Your task to perform on an android device: Open network settings Image 0: 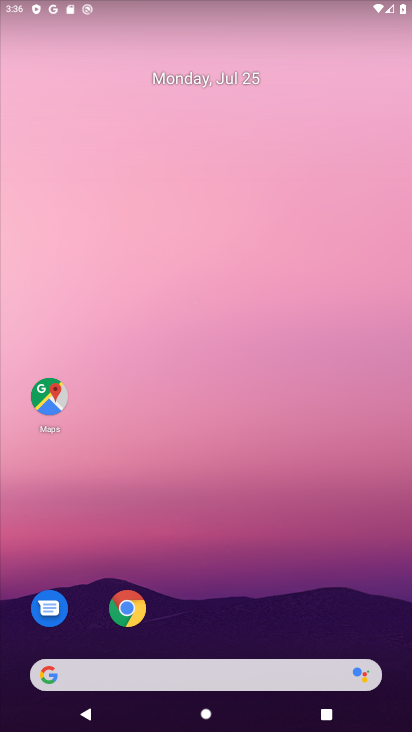
Step 0: press home button
Your task to perform on an android device: Open network settings Image 1: 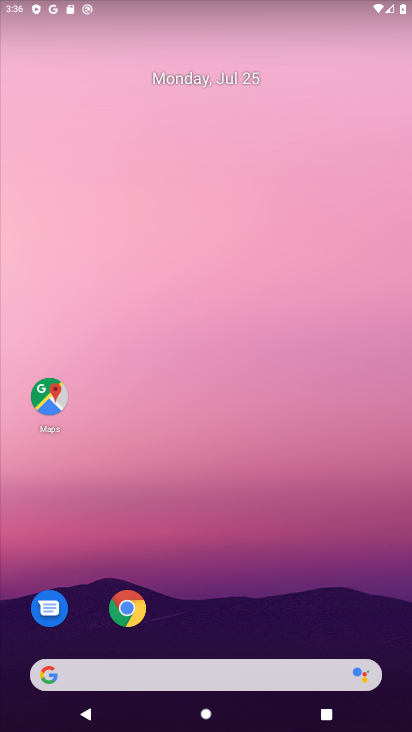
Step 1: drag from (208, 632) to (233, 10)
Your task to perform on an android device: Open network settings Image 2: 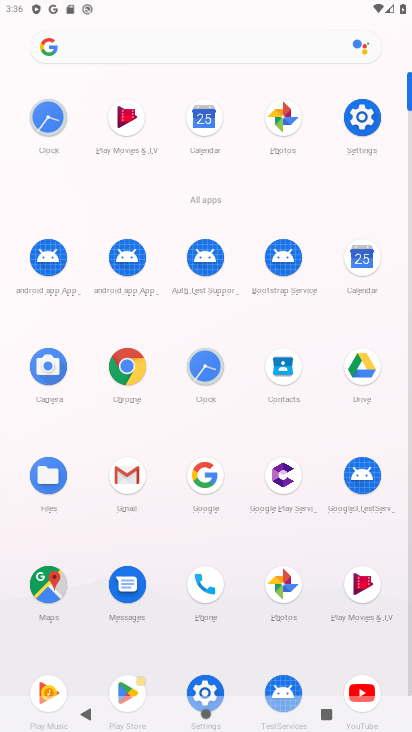
Step 2: click (361, 112)
Your task to perform on an android device: Open network settings Image 3: 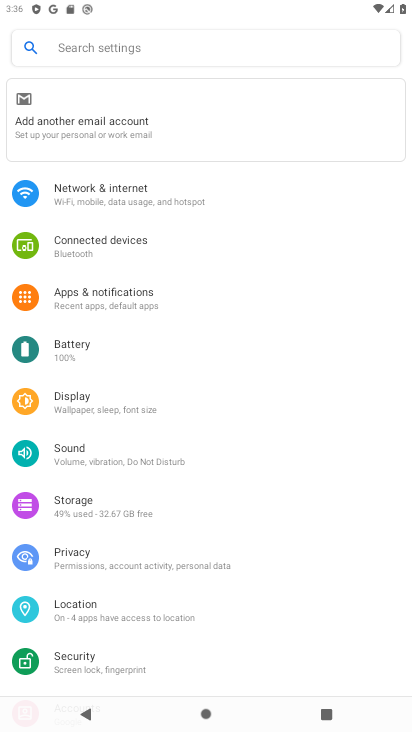
Step 3: click (162, 187)
Your task to perform on an android device: Open network settings Image 4: 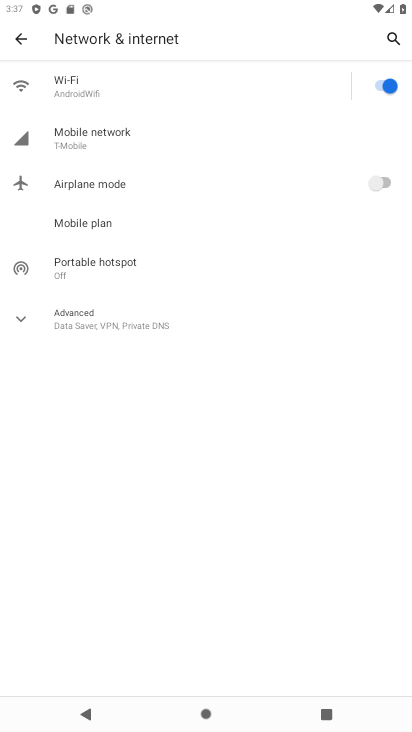
Step 4: click (19, 316)
Your task to perform on an android device: Open network settings Image 5: 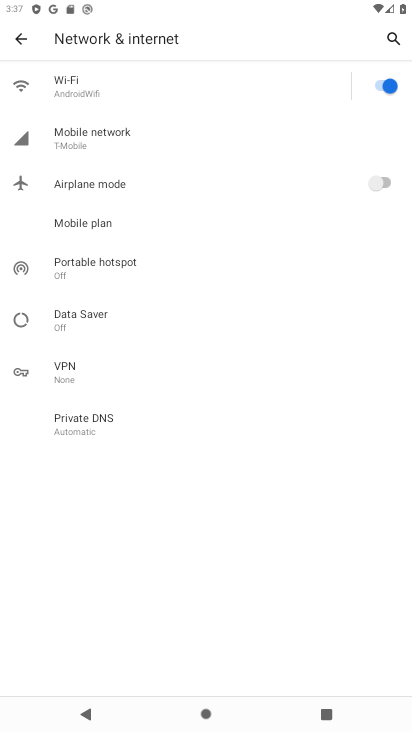
Step 5: task complete